Your task to perform on an android device: Open Maps and search for coffee Image 0: 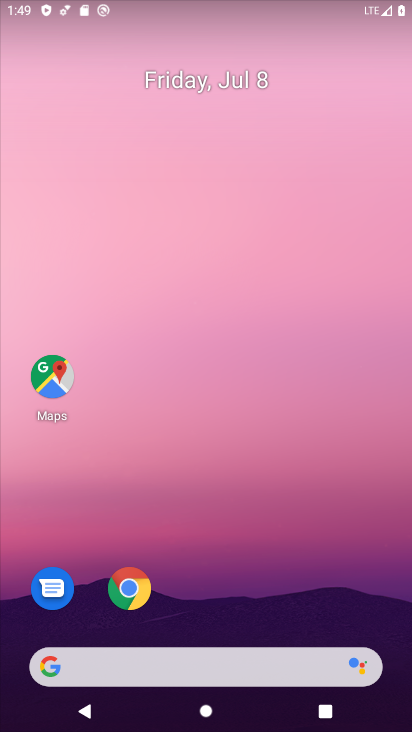
Step 0: press home button
Your task to perform on an android device: Open Maps and search for coffee Image 1: 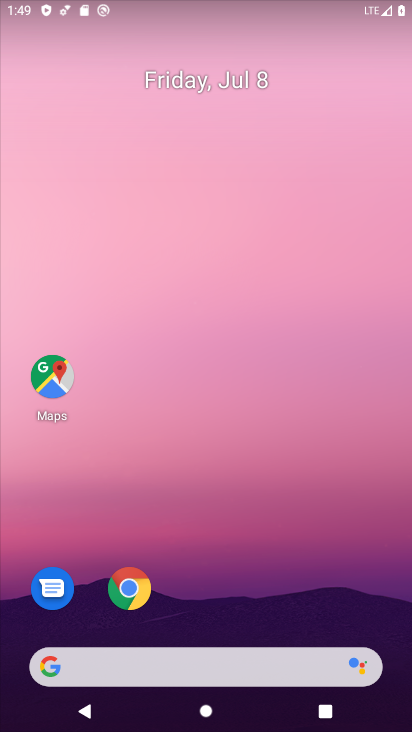
Step 1: drag from (281, 611) to (288, 0)
Your task to perform on an android device: Open Maps and search for coffee Image 2: 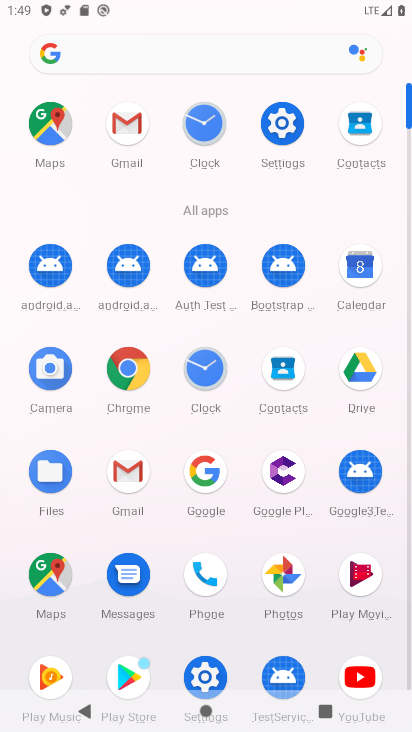
Step 2: click (57, 116)
Your task to perform on an android device: Open Maps and search for coffee Image 3: 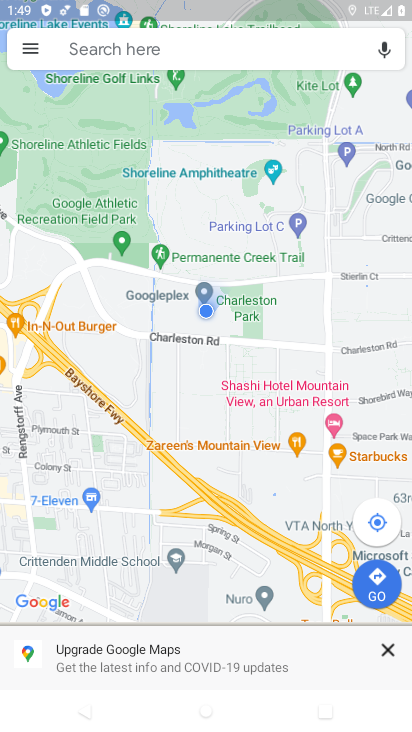
Step 3: click (163, 62)
Your task to perform on an android device: Open Maps and search for coffee Image 4: 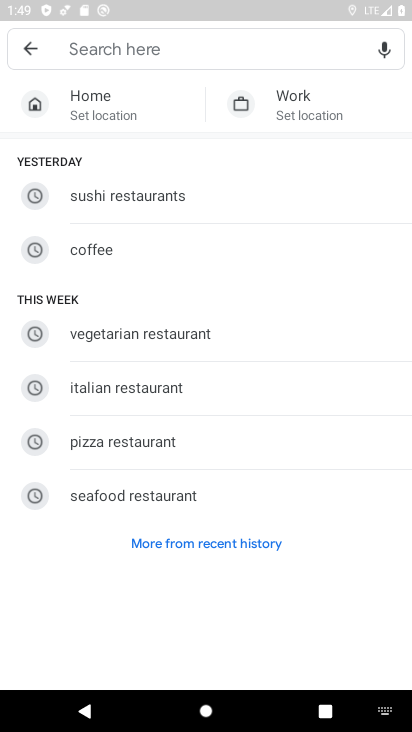
Step 4: click (102, 252)
Your task to perform on an android device: Open Maps and search for coffee Image 5: 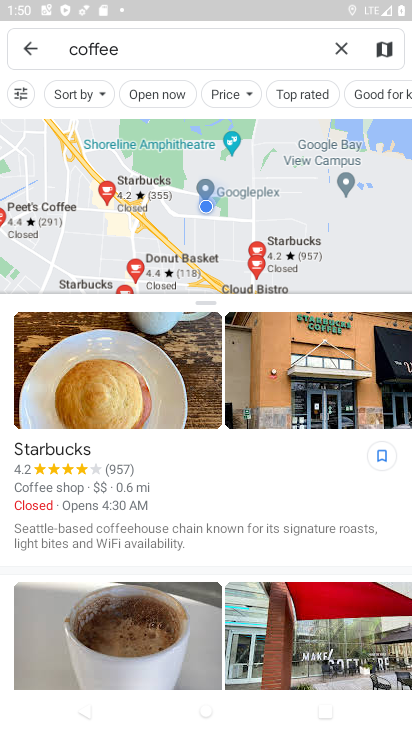
Step 5: task complete